Your task to perform on an android device: Go to Amazon Image 0: 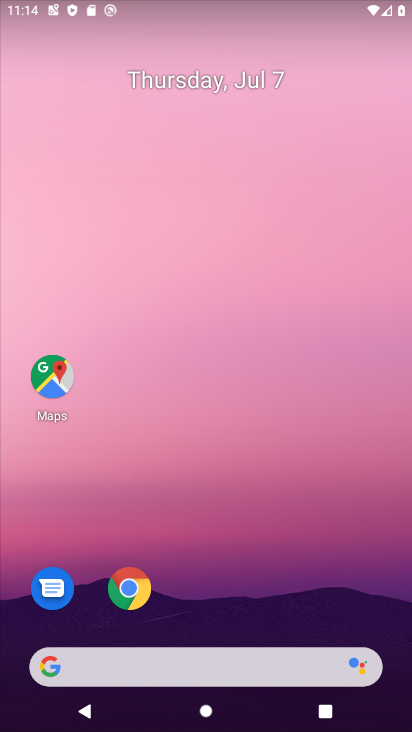
Step 0: click (131, 590)
Your task to perform on an android device: Go to Amazon Image 1: 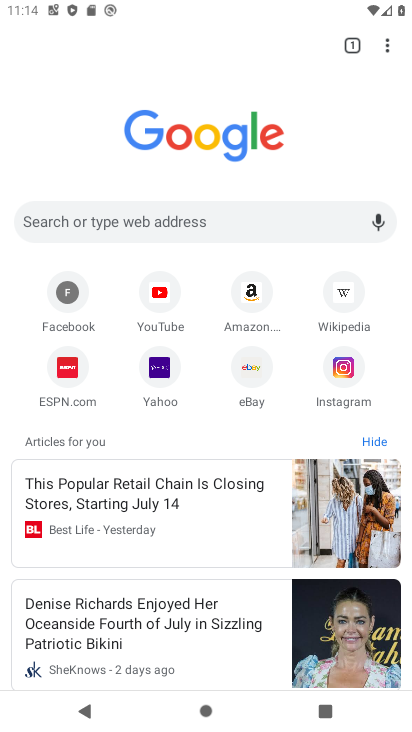
Step 1: click (245, 292)
Your task to perform on an android device: Go to Amazon Image 2: 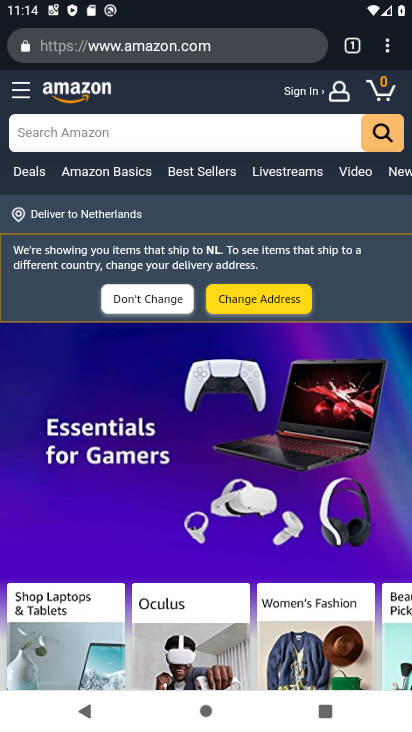
Step 2: task complete